Your task to perform on an android device: Open maps Image 0: 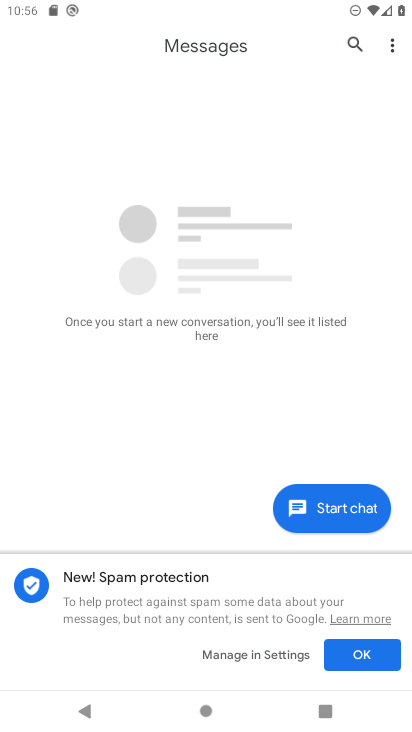
Step 0: press home button
Your task to perform on an android device: Open maps Image 1: 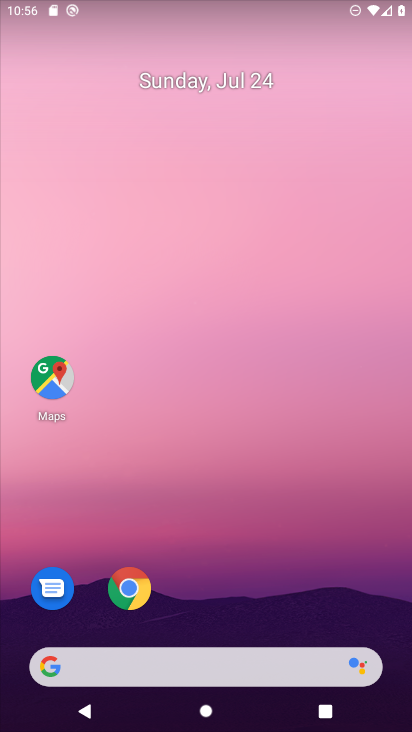
Step 1: click (53, 375)
Your task to perform on an android device: Open maps Image 2: 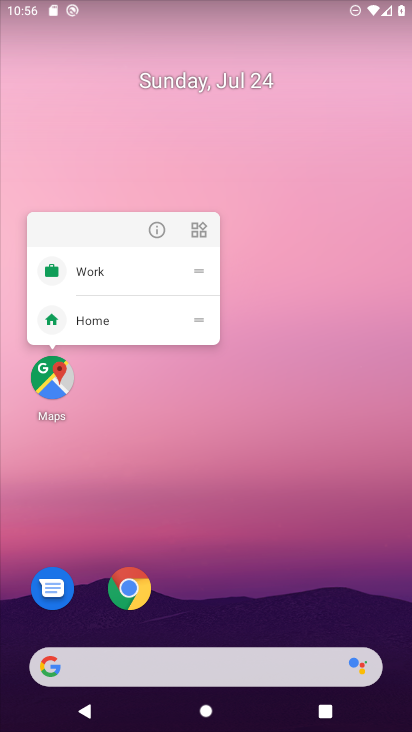
Step 2: click (53, 375)
Your task to perform on an android device: Open maps Image 3: 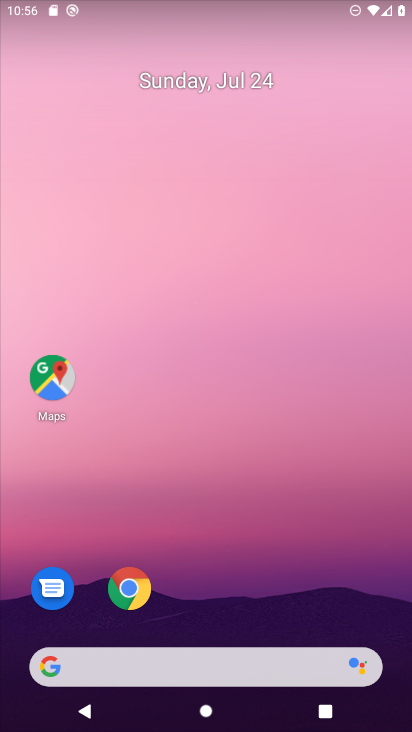
Step 3: click (53, 375)
Your task to perform on an android device: Open maps Image 4: 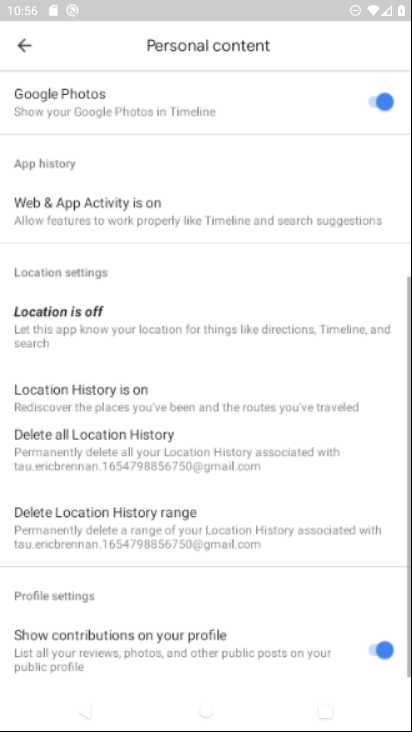
Step 4: click (53, 375)
Your task to perform on an android device: Open maps Image 5: 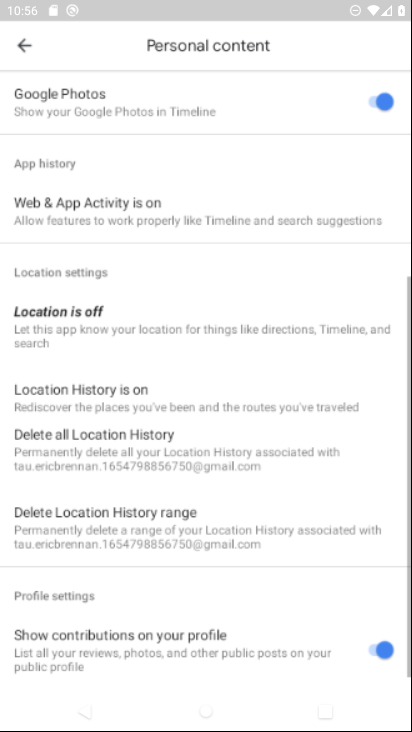
Step 5: click (53, 375)
Your task to perform on an android device: Open maps Image 6: 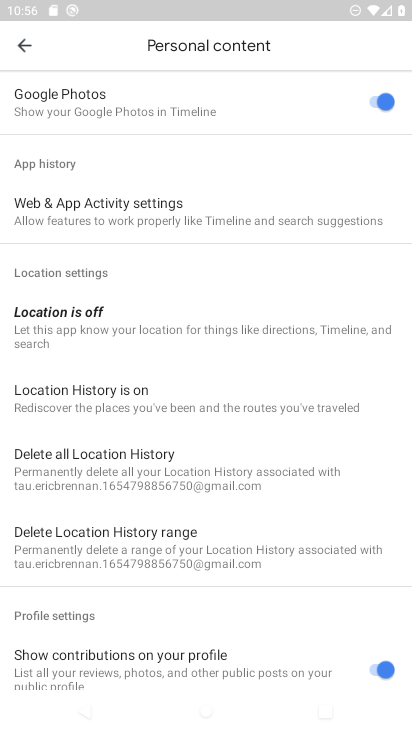
Step 6: click (36, 39)
Your task to perform on an android device: Open maps Image 7: 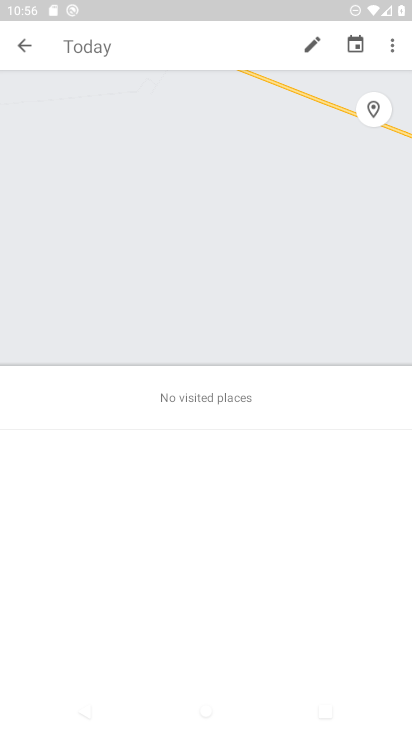
Step 7: task complete